Your task to perform on an android device: Turn on the flashlight Image 0: 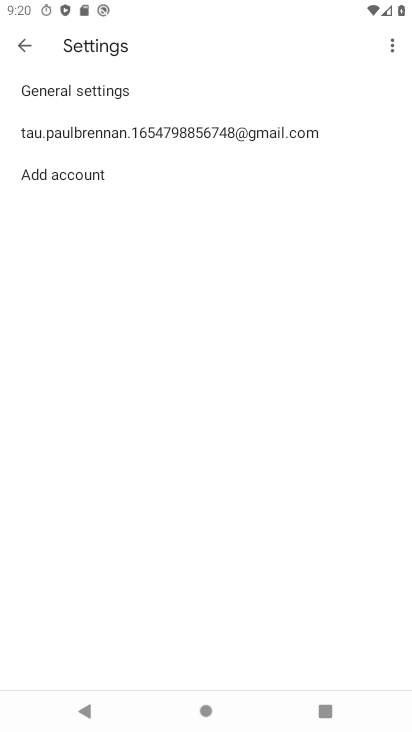
Step 0: press back button
Your task to perform on an android device: Turn on the flashlight Image 1: 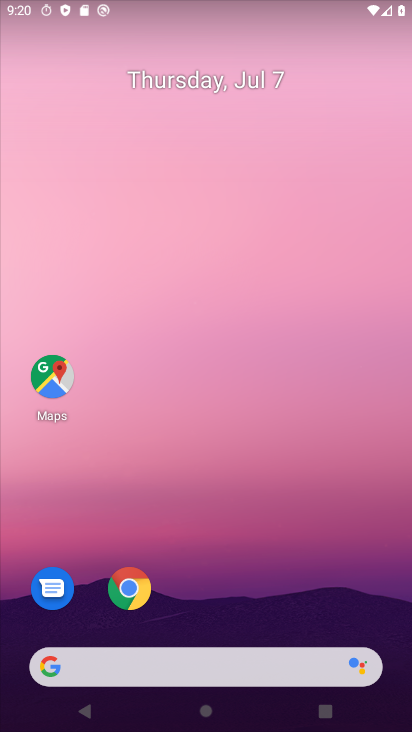
Step 1: click (114, 173)
Your task to perform on an android device: Turn on the flashlight Image 2: 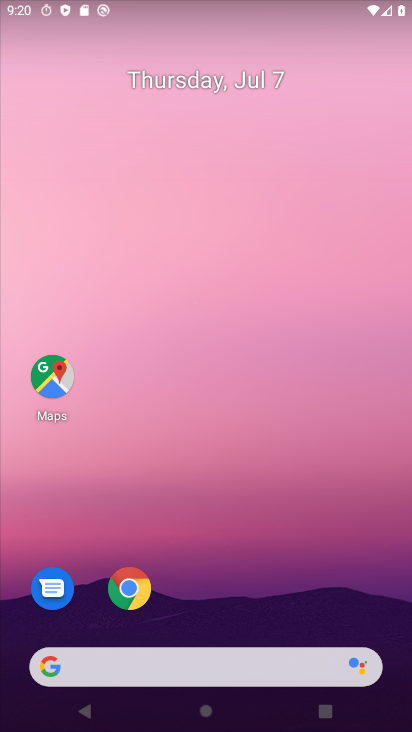
Step 2: task complete